Your task to perform on an android device: toggle airplane mode Image 0: 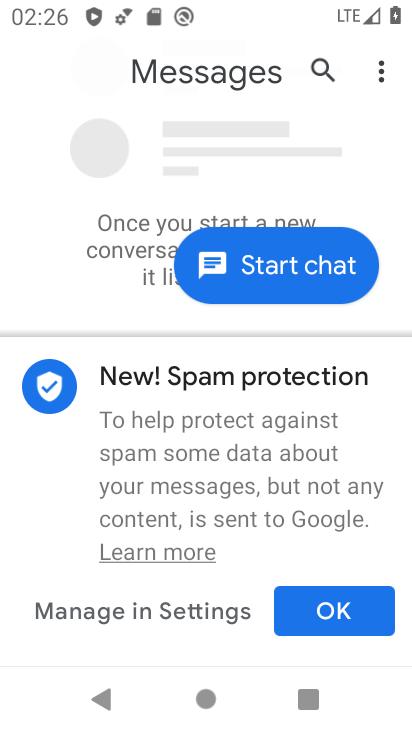
Step 0: drag from (298, 26) to (304, 537)
Your task to perform on an android device: toggle airplane mode Image 1: 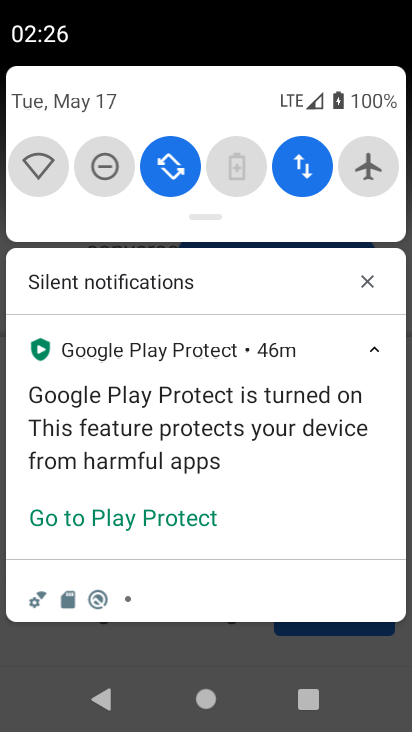
Step 1: click (376, 164)
Your task to perform on an android device: toggle airplane mode Image 2: 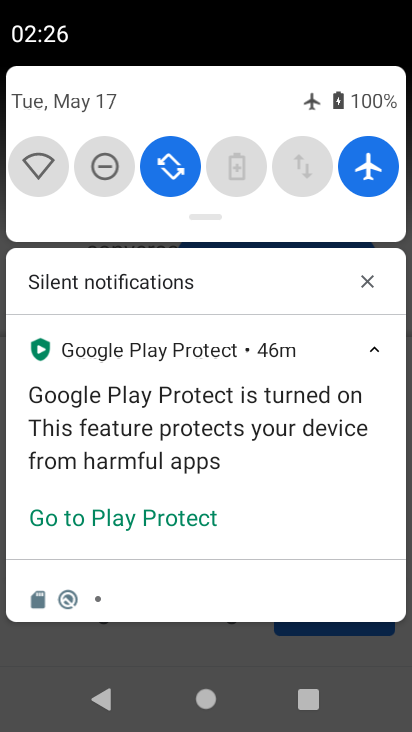
Step 2: click (376, 164)
Your task to perform on an android device: toggle airplane mode Image 3: 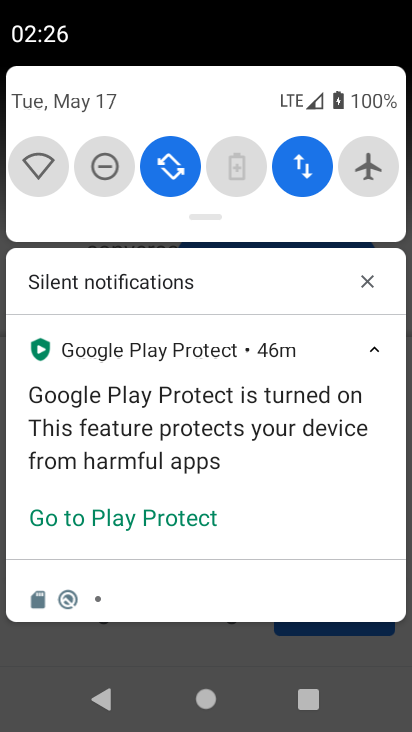
Step 3: task complete